Your task to perform on an android device: When is my next appointment? Image 0: 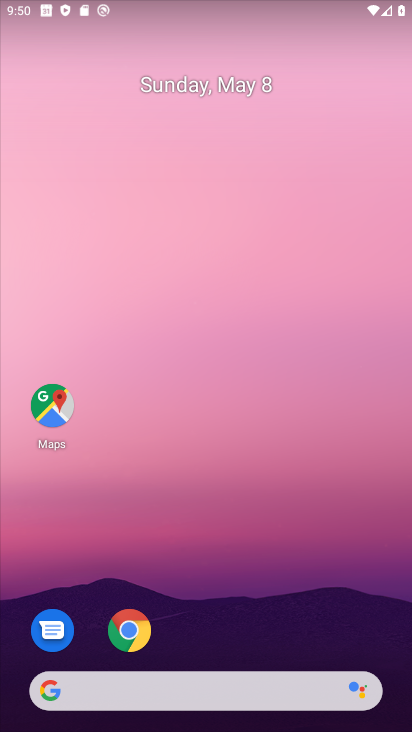
Step 0: drag from (189, 719) to (192, 172)
Your task to perform on an android device: When is my next appointment? Image 1: 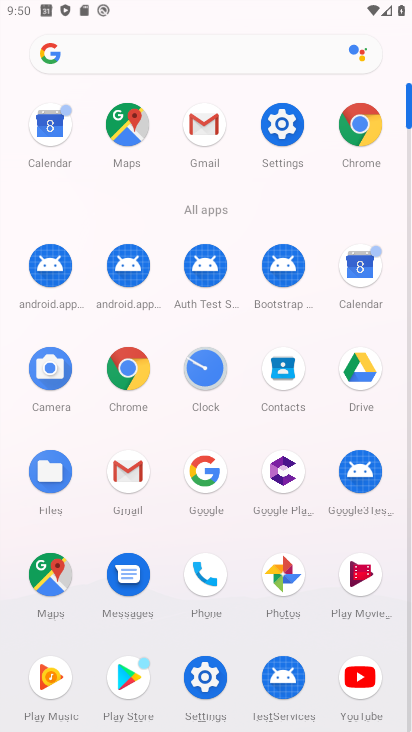
Step 1: click (358, 263)
Your task to perform on an android device: When is my next appointment? Image 2: 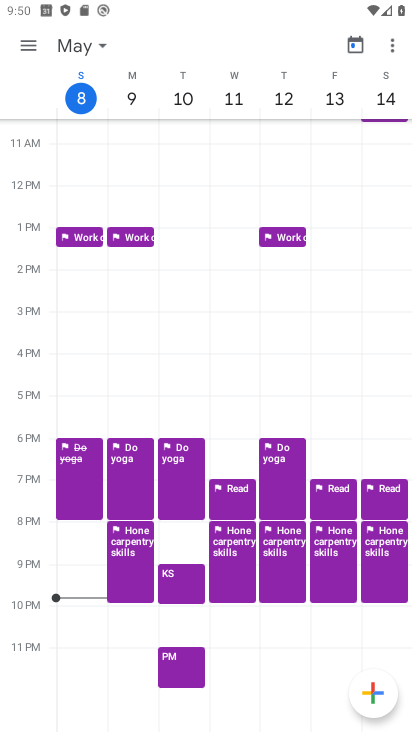
Step 2: click (131, 88)
Your task to perform on an android device: When is my next appointment? Image 3: 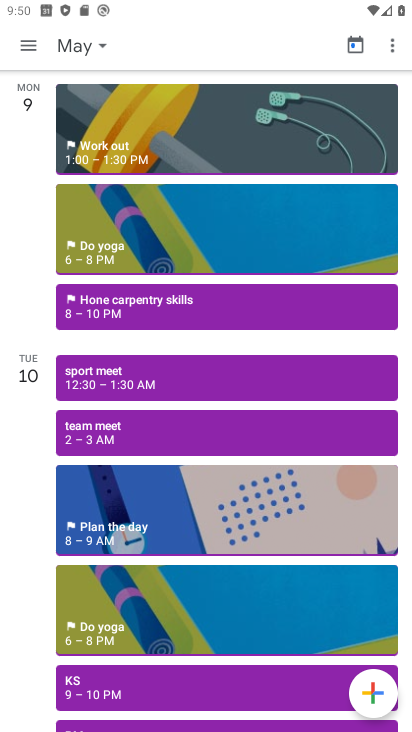
Step 3: task complete